Your task to perform on an android device: Go to accessibility settings Image 0: 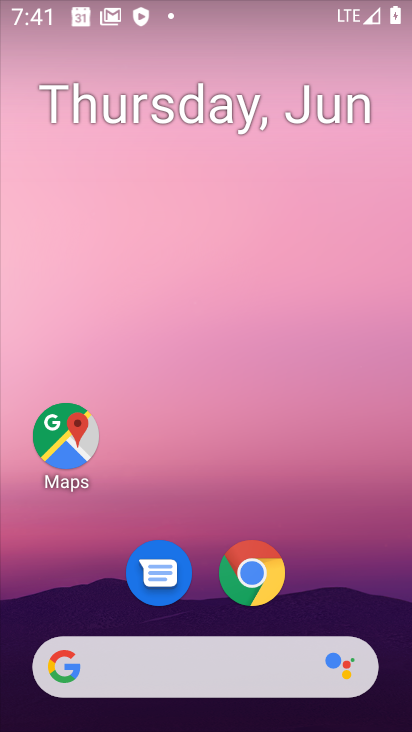
Step 0: drag from (282, 600) to (295, 177)
Your task to perform on an android device: Go to accessibility settings Image 1: 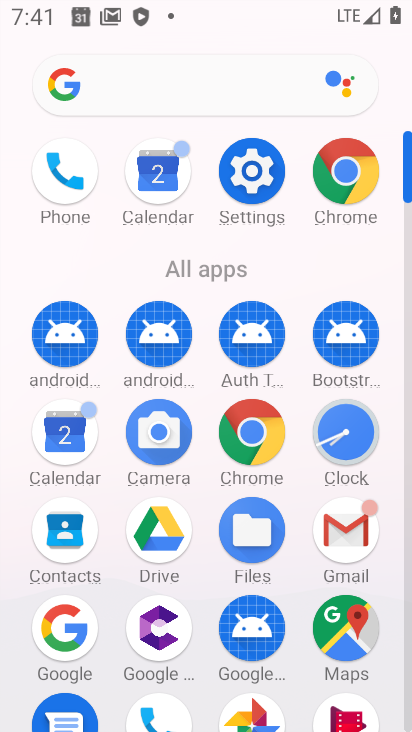
Step 1: click (257, 169)
Your task to perform on an android device: Go to accessibility settings Image 2: 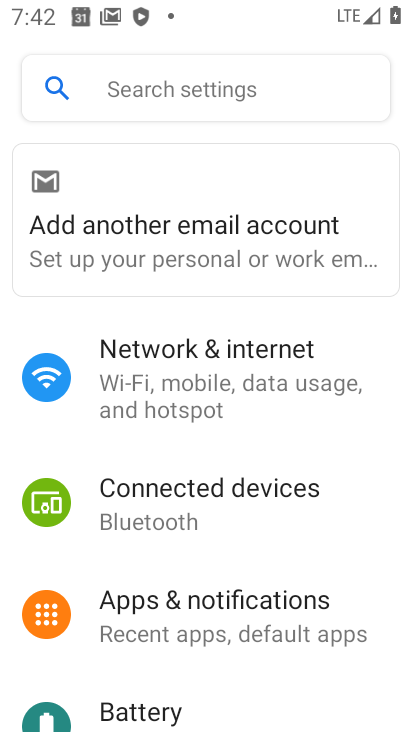
Step 2: drag from (216, 623) to (253, 135)
Your task to perform on an android device: Go to accessibility settings Image 3: 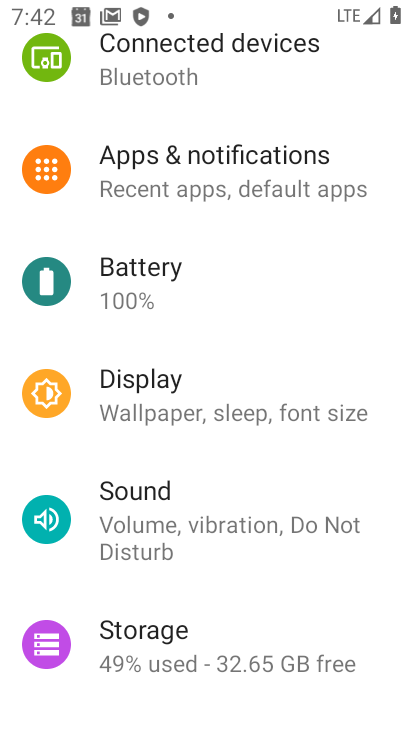
Step 3: drag from (202, 647) to (261, 210)
Your task to perform on an android device: Go to accessibility settings Image 4: 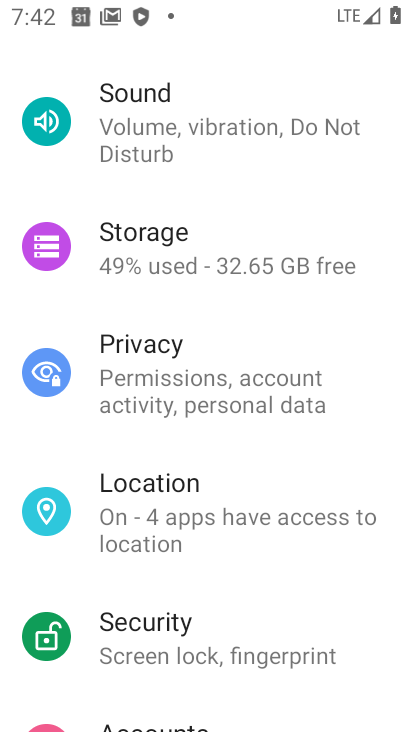
Step 4: drag from (194, 619) to (235, 219)
Your task to perform on an android device: Go to accessibility settings Image 5: 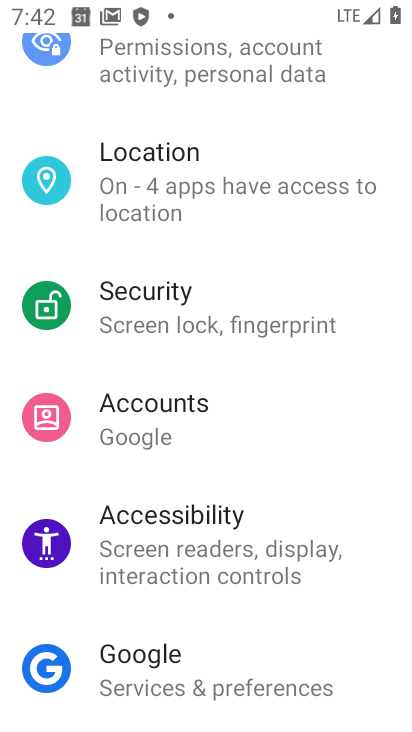
Step 5: click (173, 536)
Your task to perform on an android device: Go to accessibility settings Image 6: 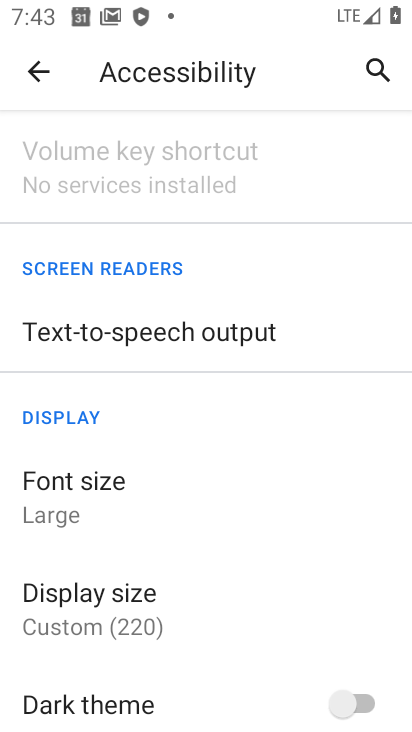
Step 6: task complete